Your task to perform on an android device: Open sound settings Image 0: 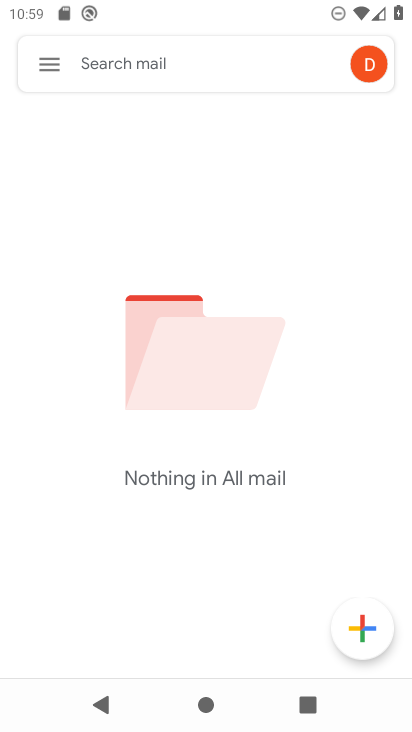
Step 0: press home button
Your task to perform on an android device: Open sound settings Image 1: 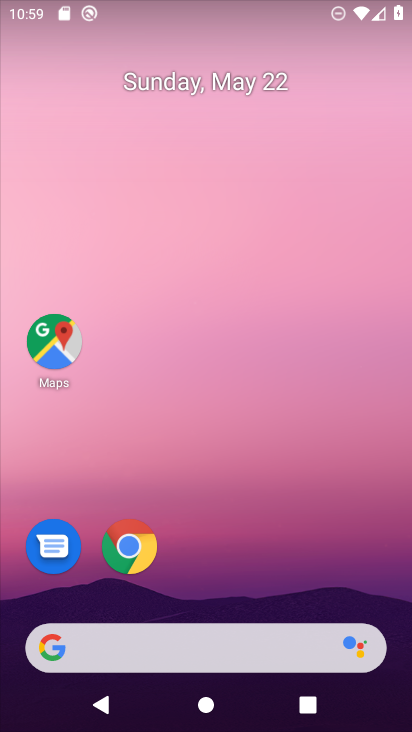
Step 1: drag from (184, 603) to (208, 40)
Your task to perform on an android device: Open sound settings Image 2: 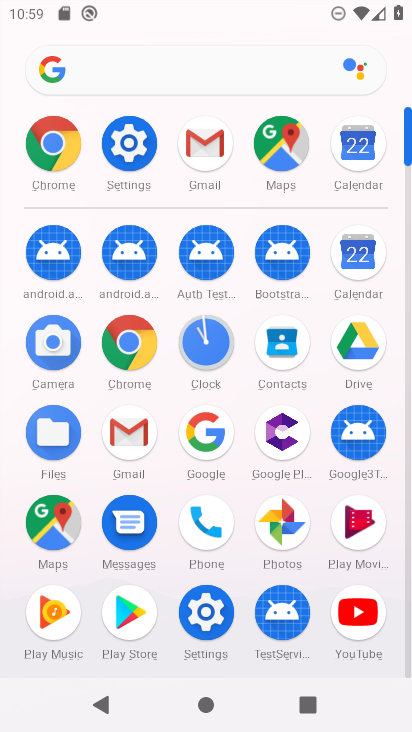
Step 2: click (204, 628)
Your task to perform on an android device: Open sound settings Image 3: 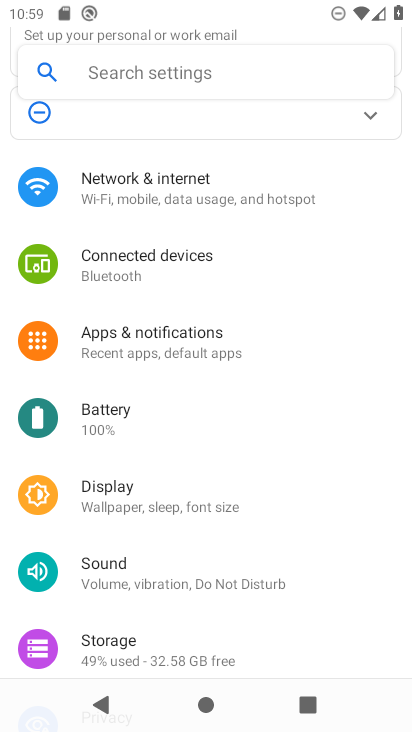
Step 3: click (160, 590)
Your task to perform on an android device: Open sound settings Image 4: 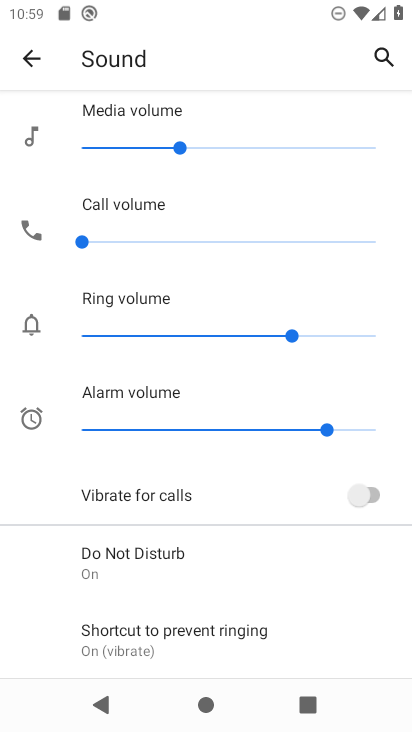
Step 4: task complete